Your task to perform on an android device: open app "Pluto TV - Live TV and Movies" (install if not already installed) and enter user name: "wools@yahoo.com" and password: "misplacing" Image 0: 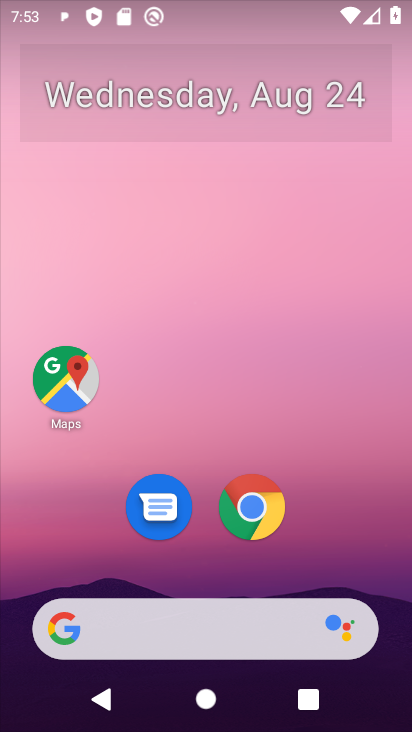
Step 0: press home button
Your task to perform on an android device: open app "Pluto TV - Live TV and Movies" (install if not already installed) and enter user name: "wools@yahoo.com" and password: "misplacing" Image 1: 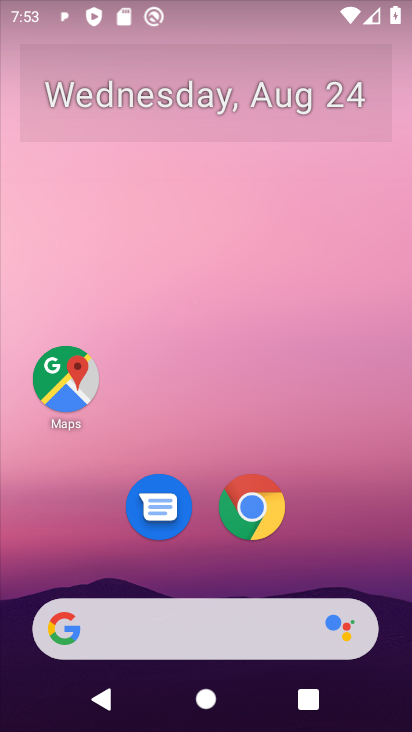
Step 1: drag from (378, 558) to (360, 115)
Your task to perform on an android device: open app "Pluto TV - Live TV and Movies" (install if not already installed) and enter user name: "wools@yahoo.com" and password: "misplacing" Image 2: 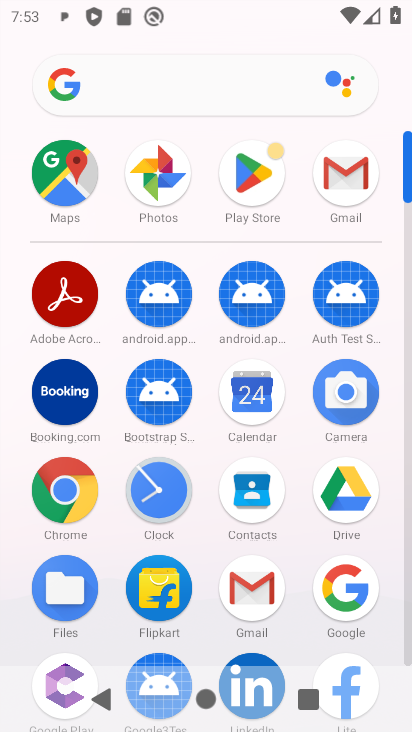
Step 2: click (251, 175)
Your task to perform on an android device: open app "Pluto TV - Live TV and Movies" (install if not already installed) and enter user name: "wools@yahoo.com" and password: "misplacing" Image 3: 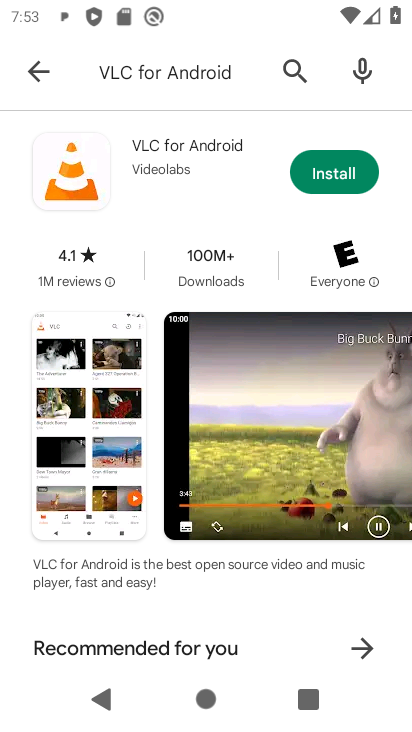
Step 3: press back button
Your task to perform on an android device: open app "Pluto TV - Live TV and Movies" (install if not already installed) and enter user name: "wools@yahoo.com" and password: "misplacing" Image 4: 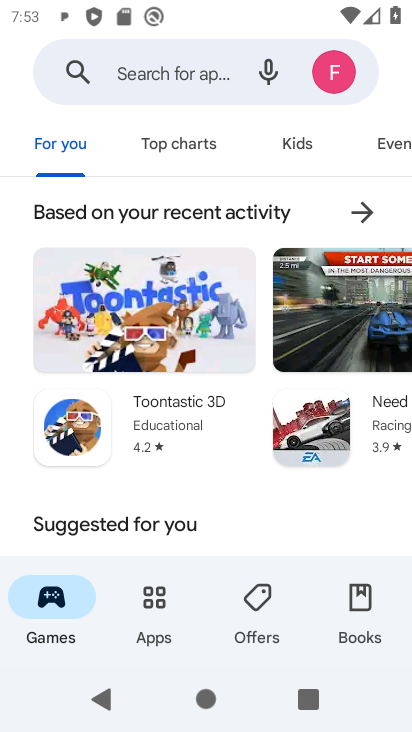
Step 4: click (151, 71)
Your task to perform on an android device: open app "Pluto TV - Live TV and Movies" (install if not already installed) and enter user name: "wools@yahoo.com" and password: "misplacing" Image 5: 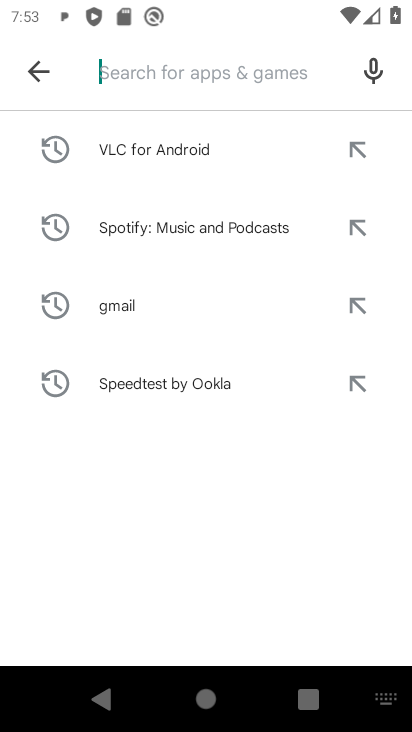
Step 5: type "Pluto TV - Live TV and Movies"
Your task to perform on an android device: open app "Pluto TV - Live TV and Movies" (install if not already installed) and enter user name: "wools@yahoo.com" and password: "misplacing" Image 6: 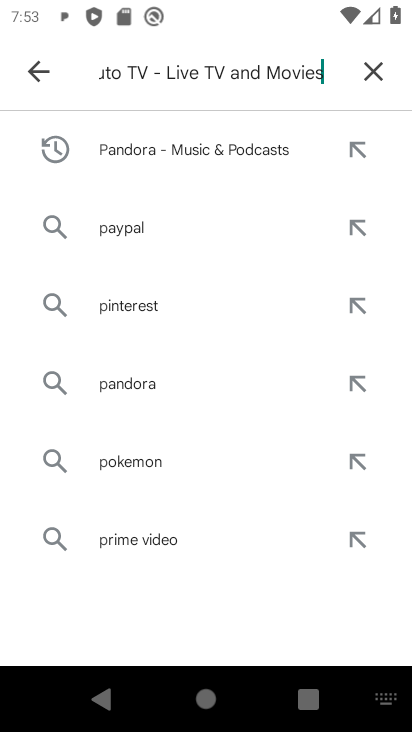
Step 6: press enter
Your task to perform on an android device: open app "Pluto TV - Live TV and Movies" (install if not already installed) and enter user name: "wools@yahoo.com" and password: "misplacing" Image 7: 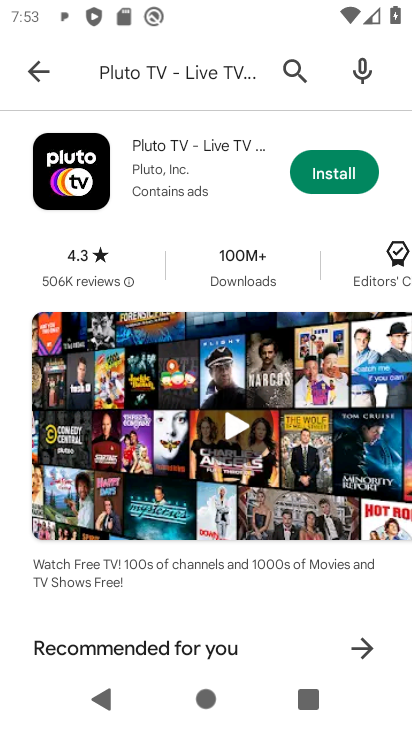
Step 7: click (334, 172)
Your task to perform on an android device: open app "Pluto TV - Live TV and Movies" (install if not already installed) and enter user name: "wools@yahoo.com" and password: "misplacing" Image 8: 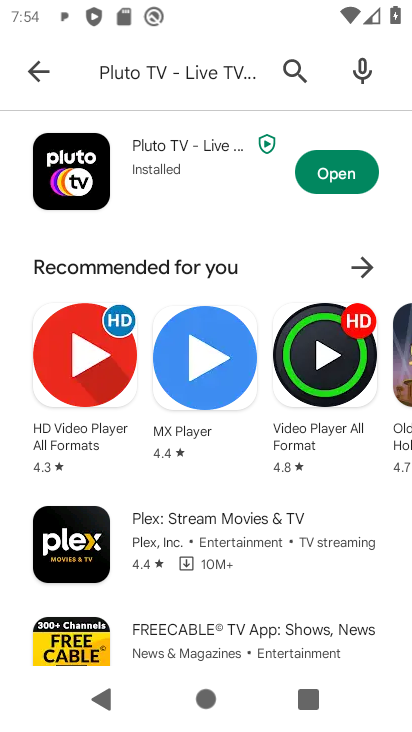
Step 8: click (342, 162)
Your task to perform on an android device: open app "Pluto TV - Live TV and Movies" (install if not already installed) and enter user name: "wools@yahoo.com" and password: "misplacing" Image 9: 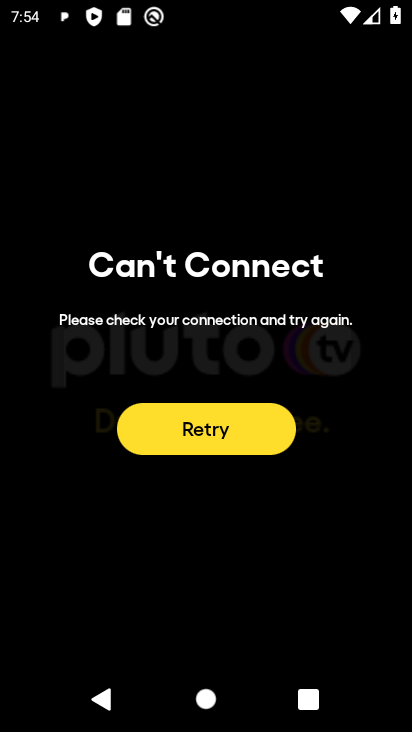
Step 9: task complete